Your task to perform on an android device: Toggle the flashlight Image 0: 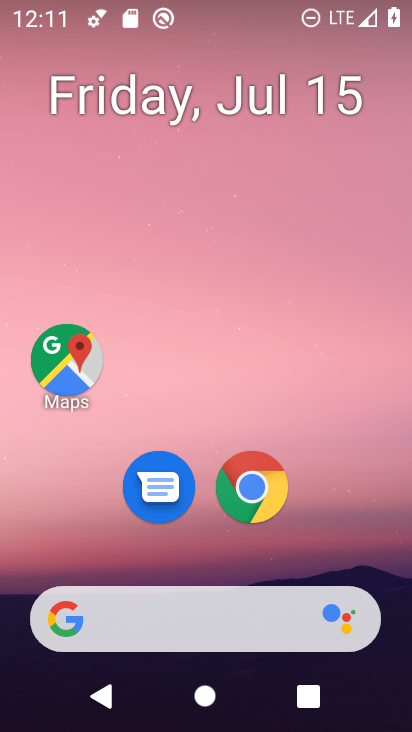
Step 0: drag from (249, 547) to (294, 221)
Your task to perform on an android device: Toggle the flashlight Image 1: 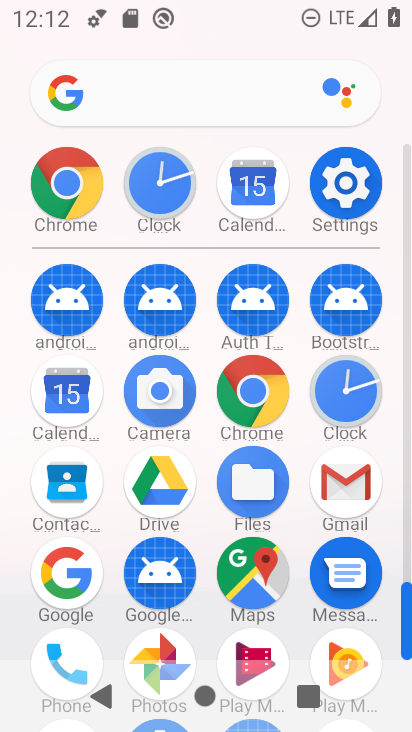
Step 1: task complete